Your task to perform on an android device: Open Google Maps and go to "Timeline" Image 0: 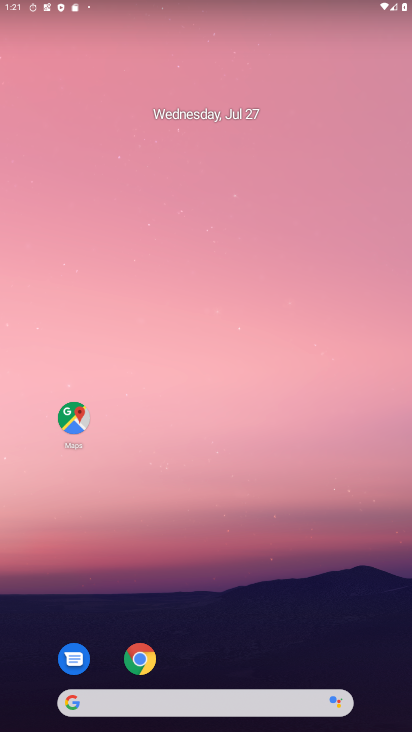
Step 0: click (74, 415)
Your task to perform on an android device: Open Google Maps and go to "Timeline" Image 1: 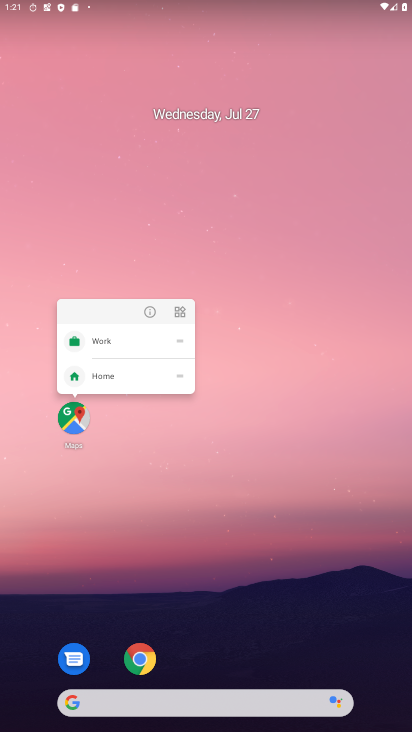
Step 1: click (74, 415)
Your task to perform on an android device: Open Google Maps and go to "Timeline" Image 2: 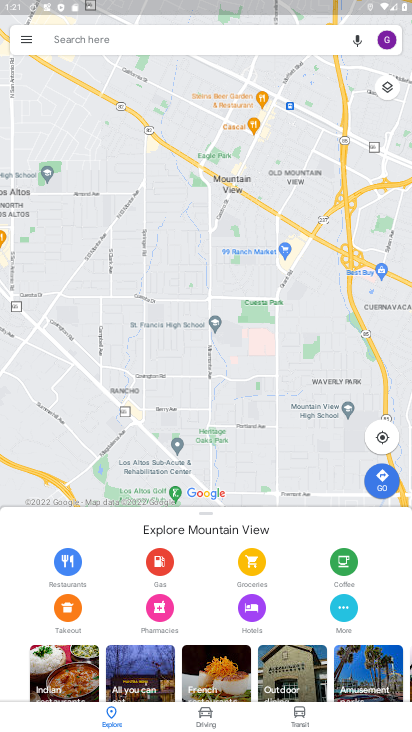
Step 2: click (25, 37)
Your task to perform on an android device: Open Google Maps and go to "Timeline" Image 3: 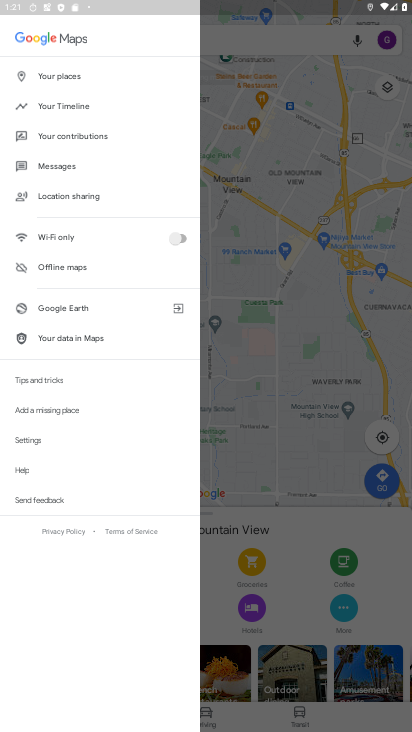
Step 3: click (97, 101)
Your task to perform on an android device: Open Google Maps and go to "Timeline" Image 4: 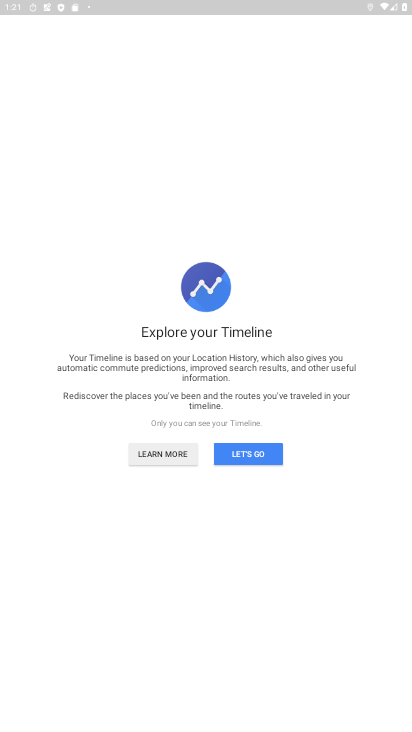
Step 4: click (250, 454)
Your task to perform on an android device: Open Google Maps and go to "Timeline" Image 5: 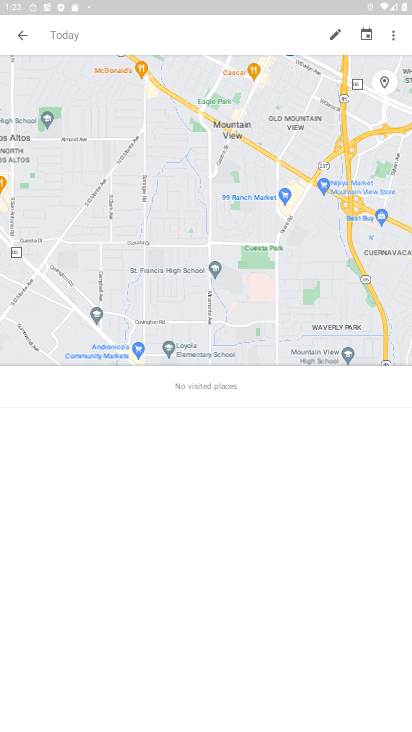
Step 5: task complete